Your task to perform on an android device: Go to privacy settings Image 0: 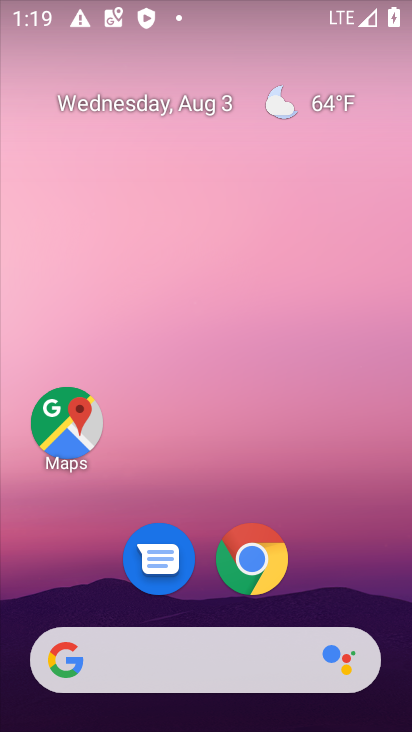
Step 0: drag from (210, 597) to (209, 89)
Your task to perform on an android device: Go to privacy settings Image 1: 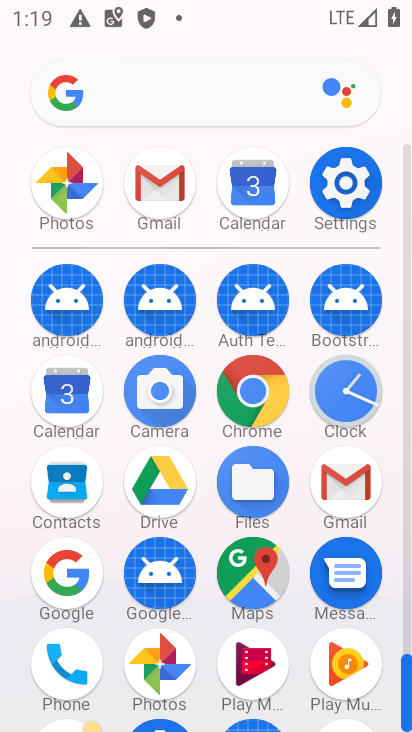
Step 1: click (351, 184)
Your task to perform on an android device: Go to privacy settings Image 2: 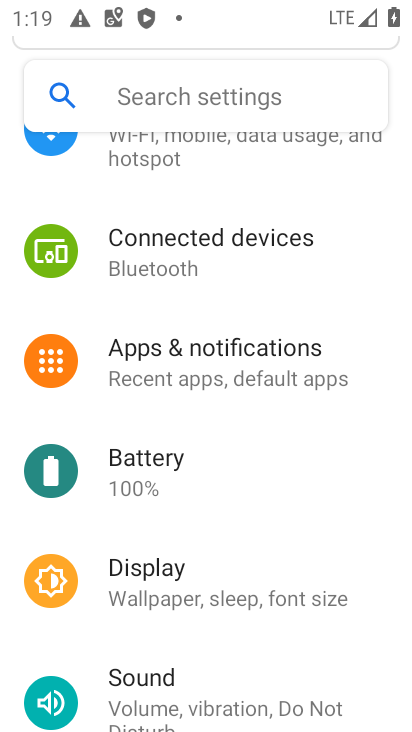
Step 2: drag from (149, 618) to (175, 229)
Your task to perform on an android device: Go to privacy settings Image 3: 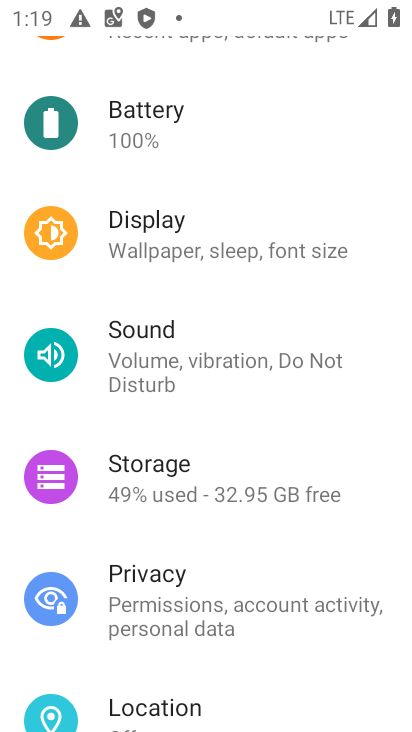
Step 3: click (142, 582)
Your task to perform on an android device: Go to privacy settings Image 4: 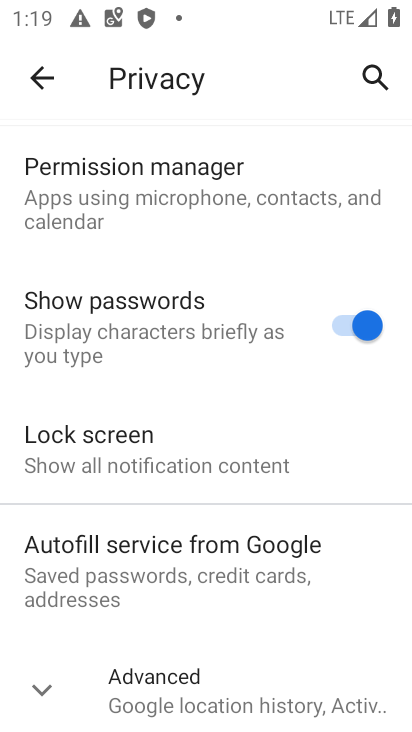
Step 4: task complete